Your task to perform on an android device: turn on priority inbox in the gmail app Image 0: 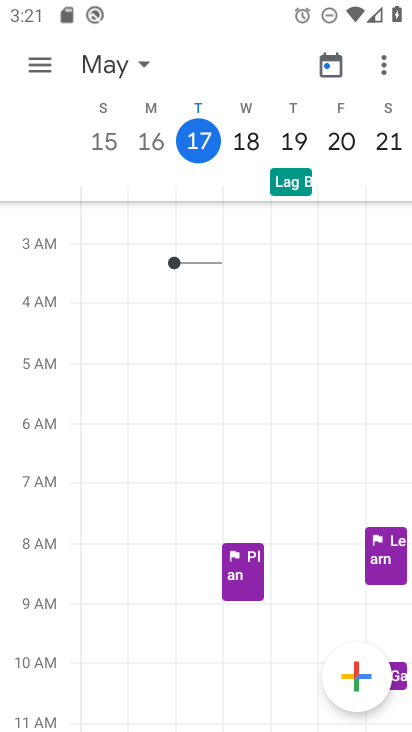
Step 0: press back button
Your task to perform on an android device: turn on priority inbox in the gmail app Image 1: 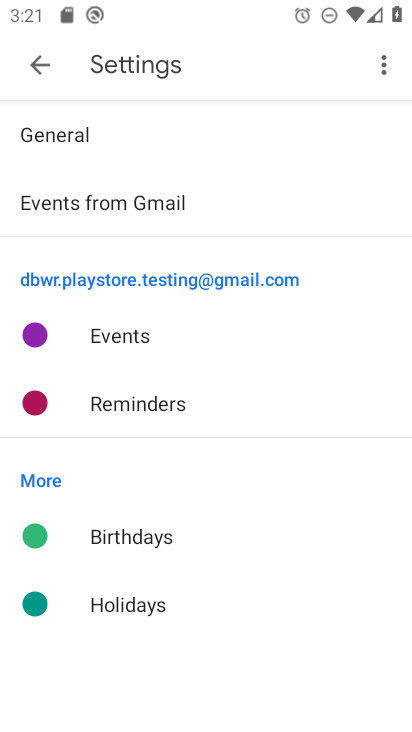
Step 1: press home button
Your task to perform on an android device: turn on priority inbox in the gmail app Image 2: 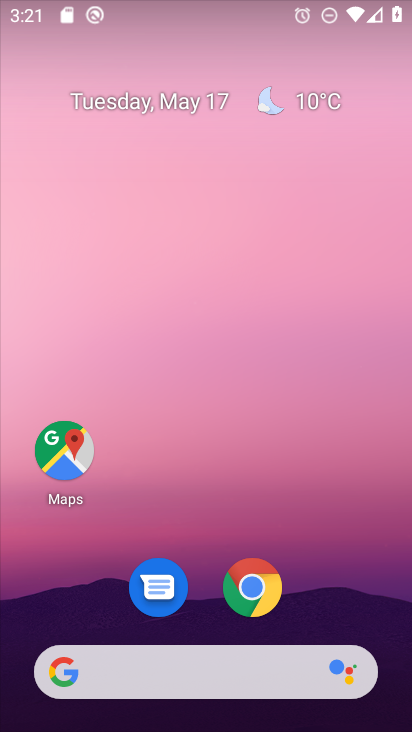
Step 2: drag from (334, 602) to (291, 55)
Your task to perform on an android device: turn on priority inbox in the gmail app Image 3: 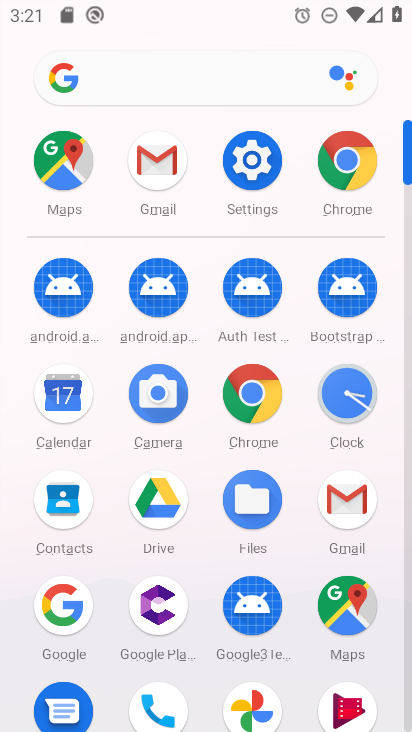
Step 3: click (242, 160)
Your task to perform on an android device: turn on priority inbox in the gmail app Image 4: 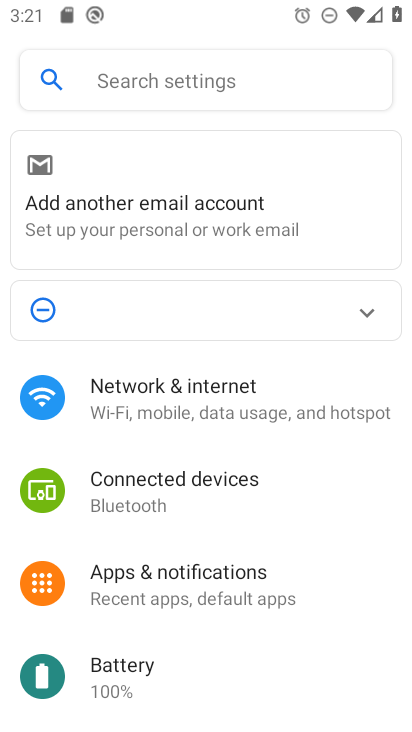
Step 4: drag from (257, 574) to (273, 193)
Your task to perform on an android device: turn on priority inbox in the gmail app Image 5: 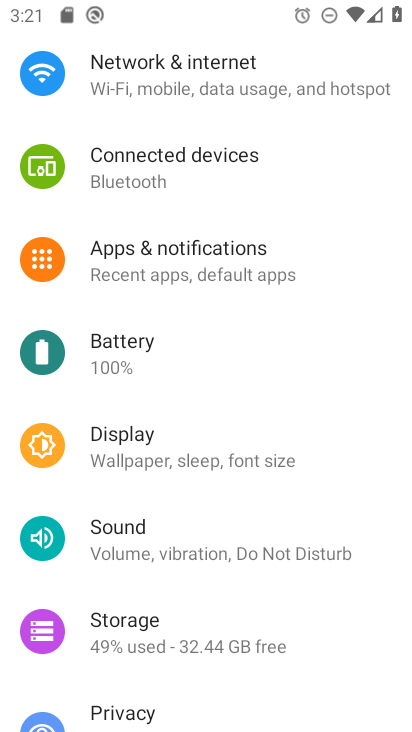
Step 5: press back button
Your task to perform on an android device: turn on priority inbox in the gmail app Image 6: 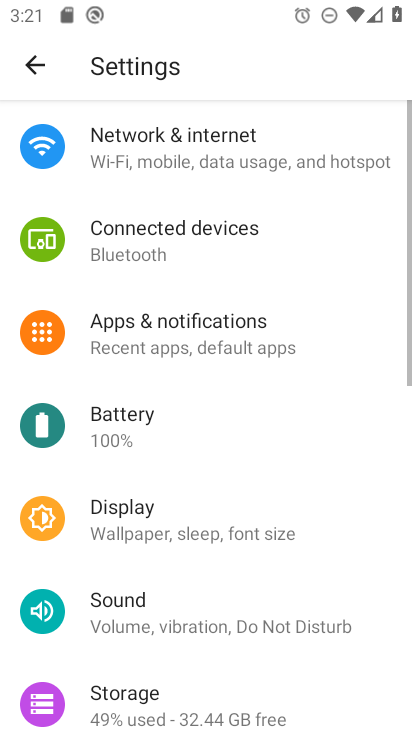
Step 6: press back button
Your task to perform on an android device: turn on priority inbox in the gmail app Image 7: 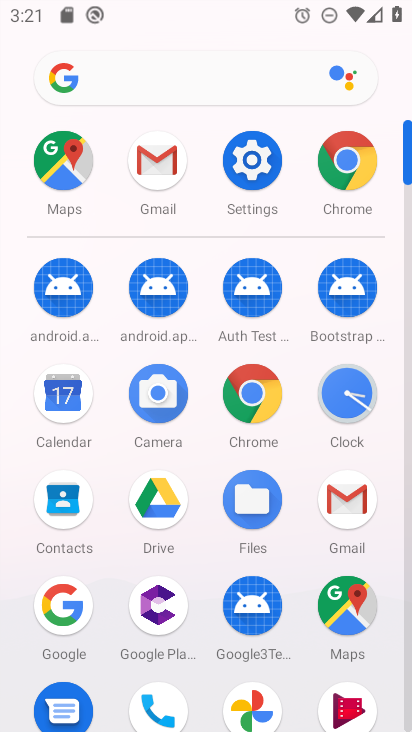
Step 7: click (150, 156)
Your task to perform on an android device: turn on priority inbox in the gmail app Image 8: 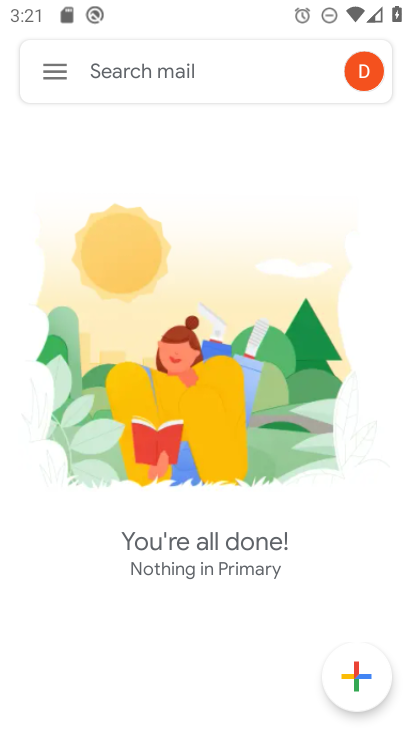
Step 8: click (60, 85)
Your task to perform on an android device: turn on priority inbox in the gmail app Image 9: 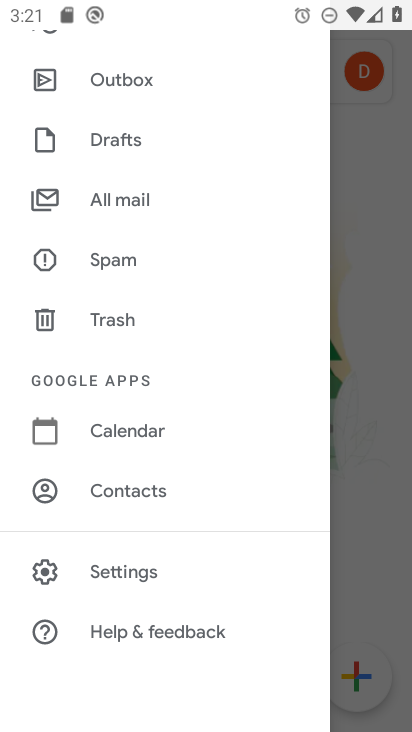
Step 9: click (113, 562)
Your task to perform on an android device: turn on priority inbox in the gmail app Image 10: 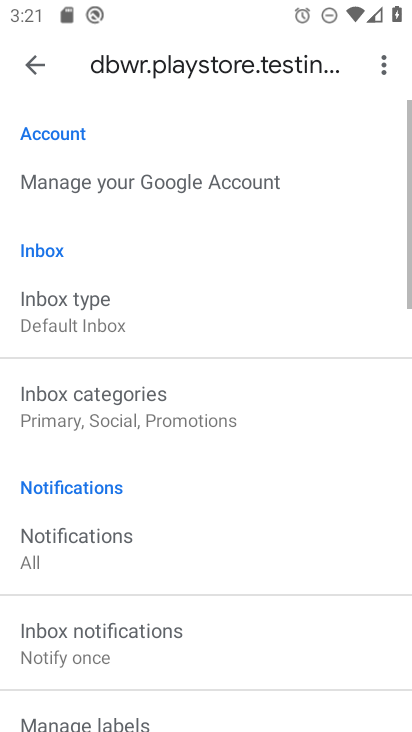
Step 10: click (102, 313)
Your task to perform on an android device: turn on priority inbox in the gmail app Image 11: 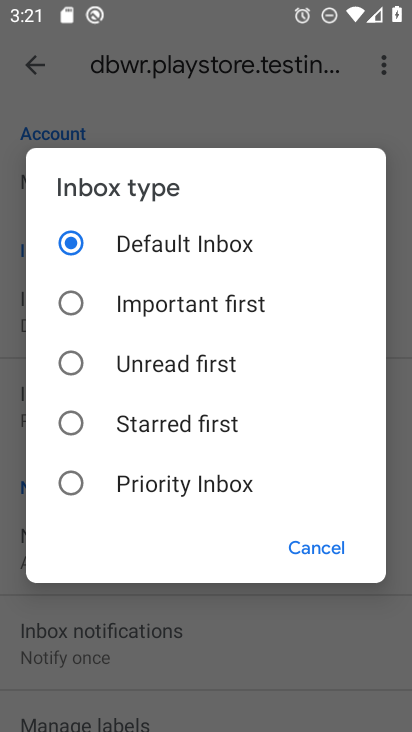
Step 11: click (144, 478)
Your task to perform on an android device: turn on priority inbox in the gmail app Image 12: 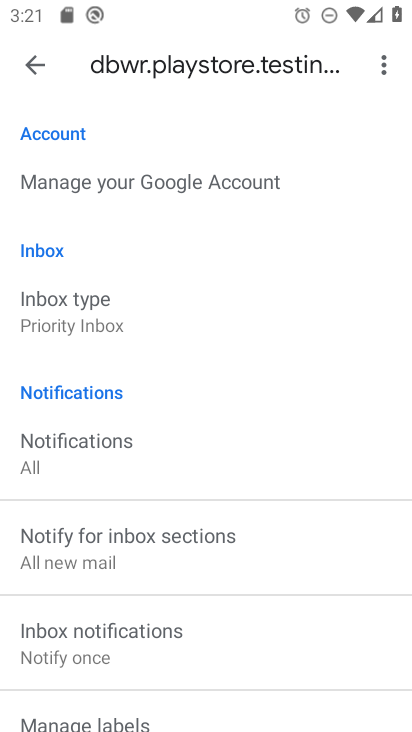
Step 12: task complete